Your task to perform on an android device: show emergency info Image 0: 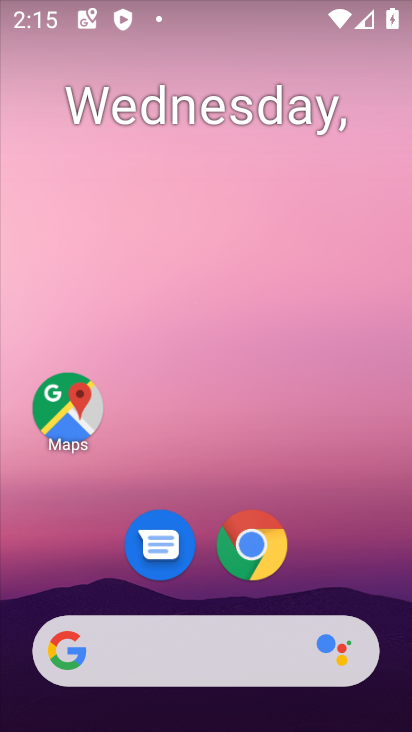
Step 0: drag from (323, 568) to (286, 235)
Your task to perform on an android device: show emergency info Image 1: 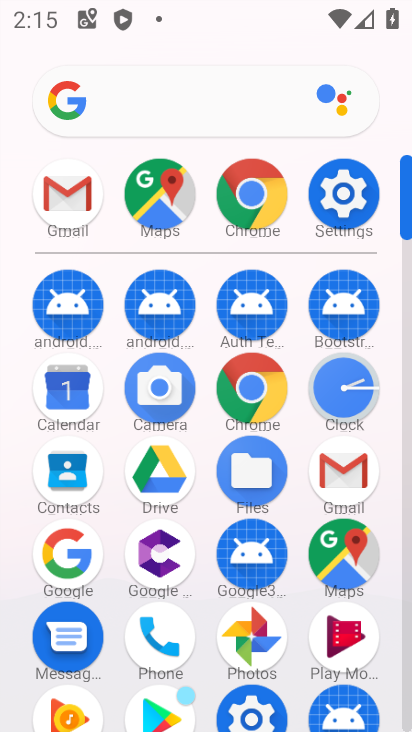
Step 1: click (327, 188)
Your task to perform on an android device: show emergency info Image 2: 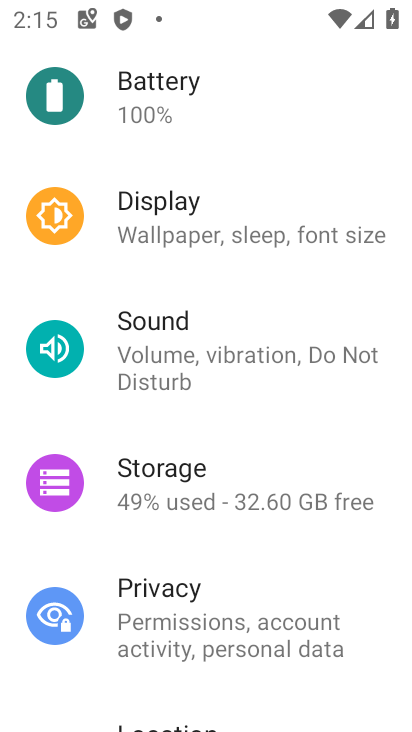
Step 2: drag from (257, 564) to (237, 86)
Your task to perform on an android device: show emergency info Image 3: 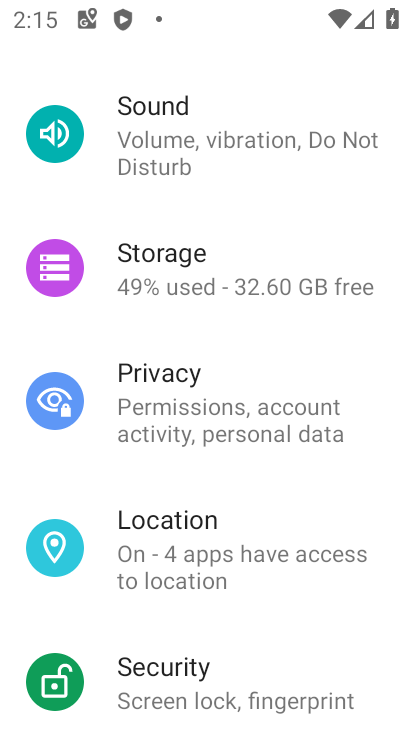
Step 3: drag from (213, 602) to (237, 187)
Your task to perform on an android device: show emergency info Image 4: 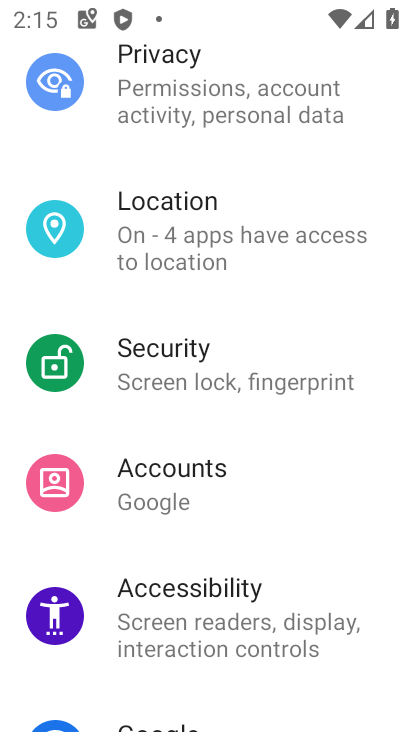
Step 4: drag from (222, 565) to (248, 184)
Your task to perform on an android device: show emergency info Image 5: 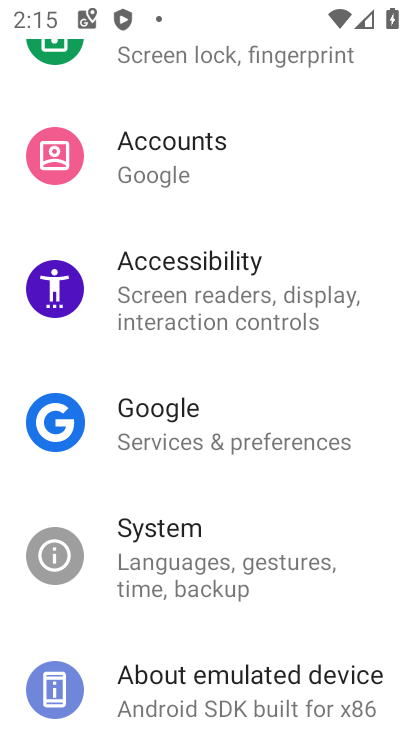
Step 5: drag from (244, 573) to (266, 259)
Your task to perform on an android device: show emergency info Image 6: 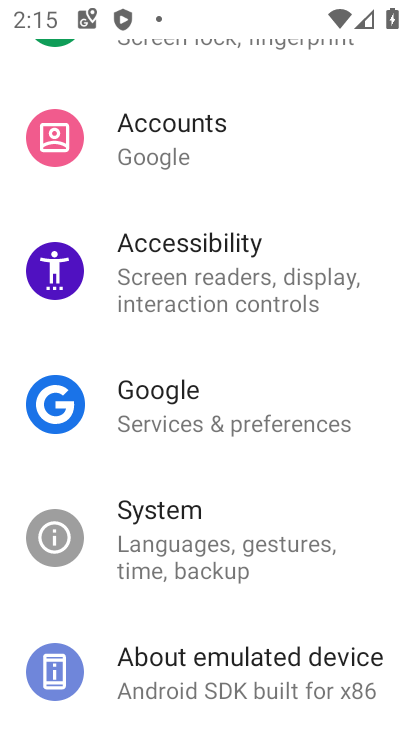
Step 6: click (248, 687)
Your task to perform on an android device: show emergency info Image 7: 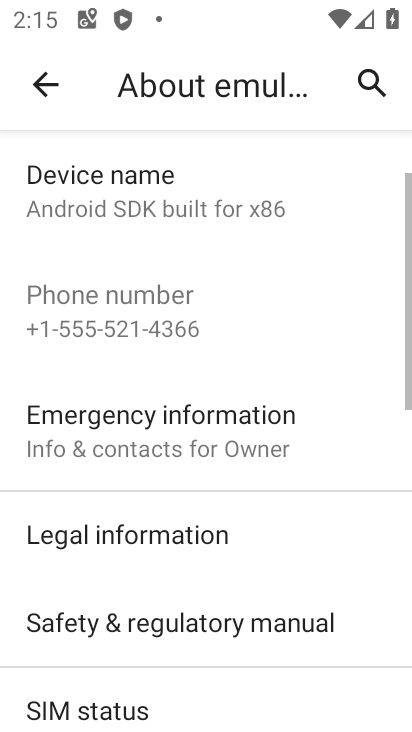
Step 7: drag from (230, 526) to (209, 243)
Your task to perform on an android device: show emergency info Image 8: 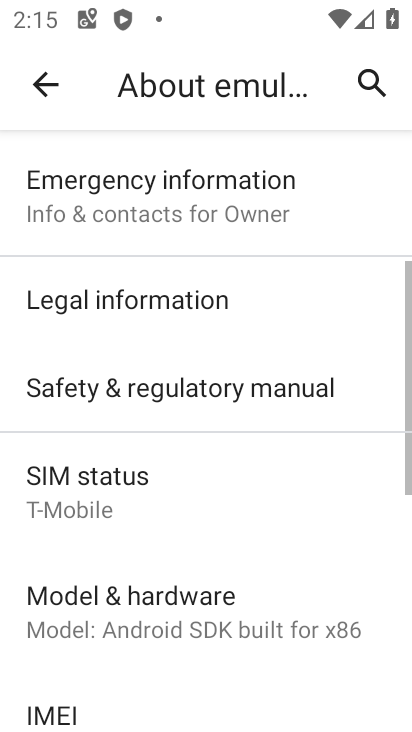
Step 8: drag from (195, 556) to (193, 225)
Your task to perform on an android device: show emergency info Image 9: 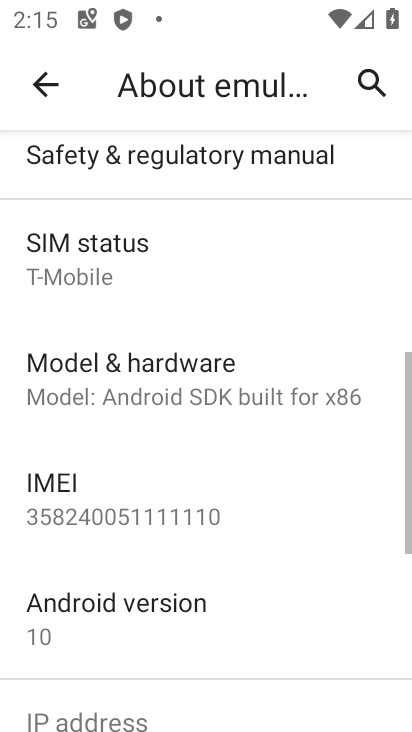
Step 9: drag from (221, 625) to (231, 233)
Your task to perform on an android device: show emergency info Image 10: 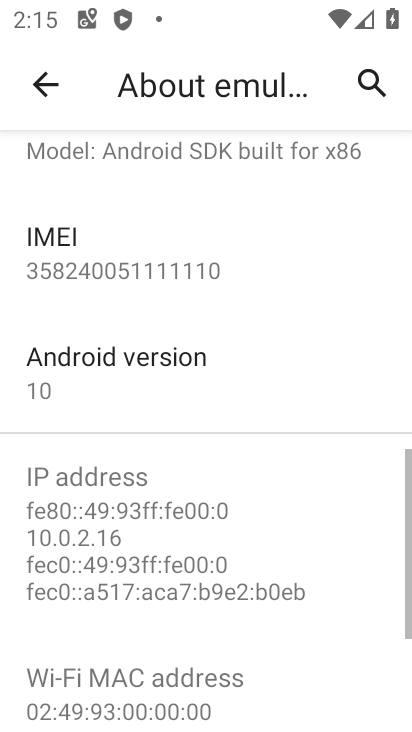
Step 10: drag from (185, 392) to (241, 680)
Your task to perform on an android device: show emergency info Image 11: 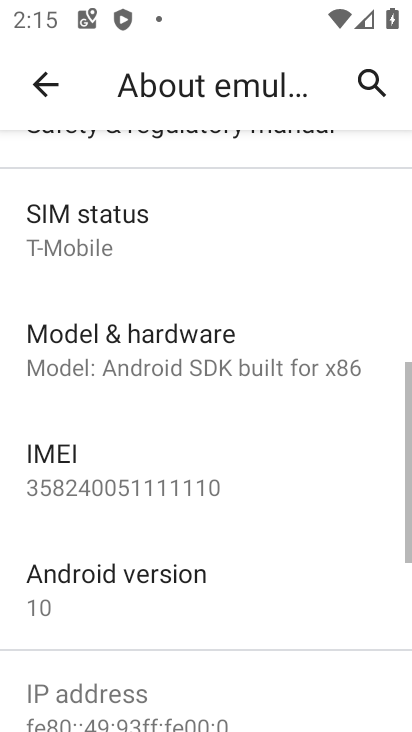
Step 11: drag from (215, 232) to (279, 644)
Your task to perform on an android device: show emergency info Image 12: 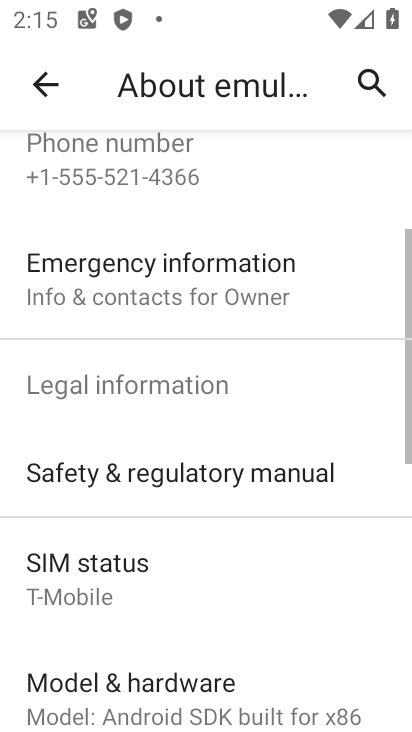
Step 12: click (227, 278)
Your task to perform on an android device: show emergency info Image 13: 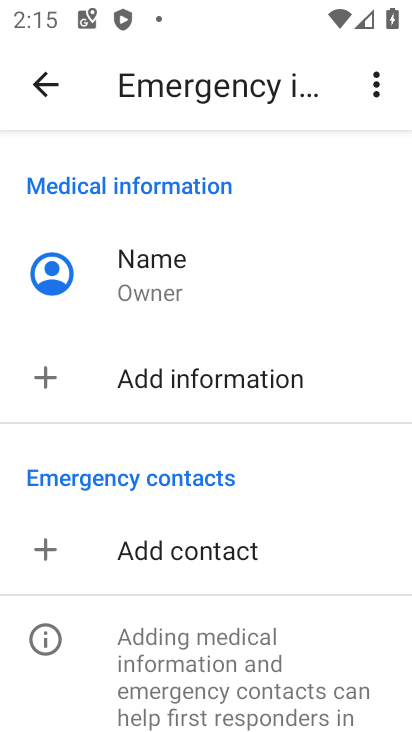
Step 13: task complete